Your task to perform on an android device: What's the weather today? Image 0: 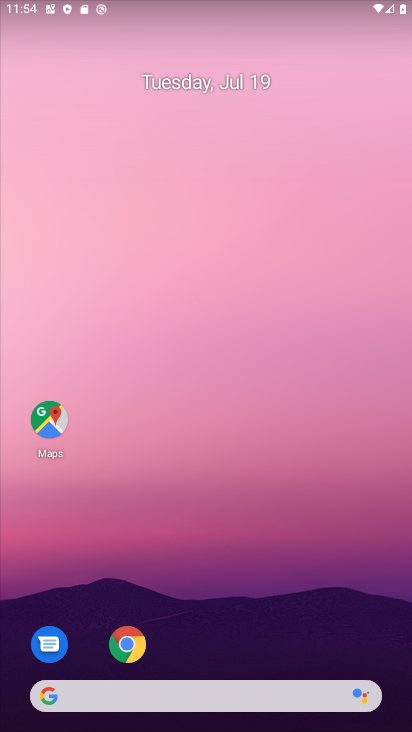
Step 0: press home button
Your task to perform on an android device: What's the weather today? Image 1: 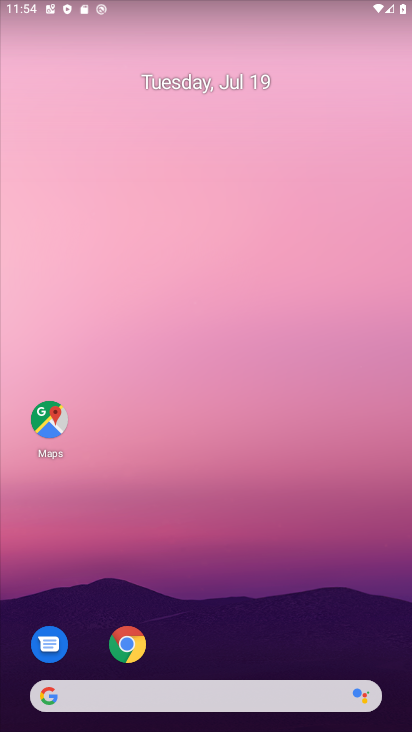
Step 1: click (129, 640)
Your task to perform on an android device: What's the weather today? Image 2: 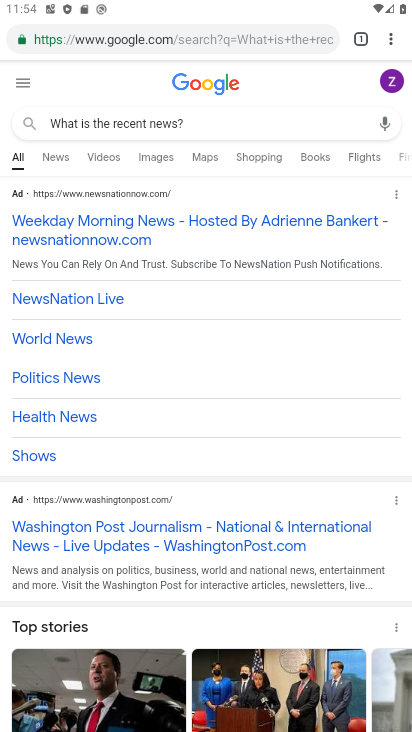
Step 2: task complete